Your task to perform on an android device: Open the web browser Image 0: 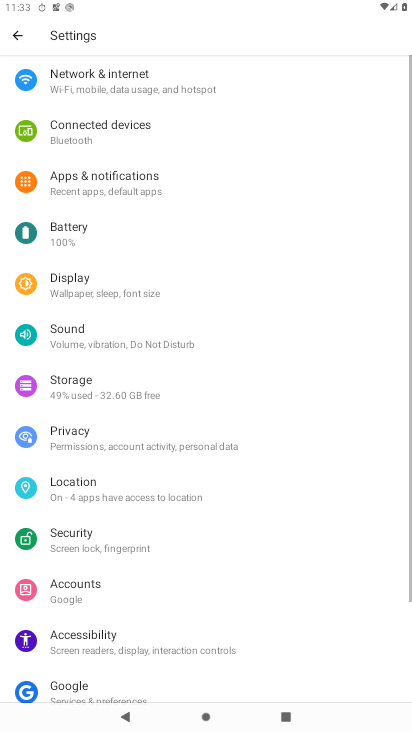
Step 0: press home button
Your task to perform on an android device: Open the web browser Image 1: 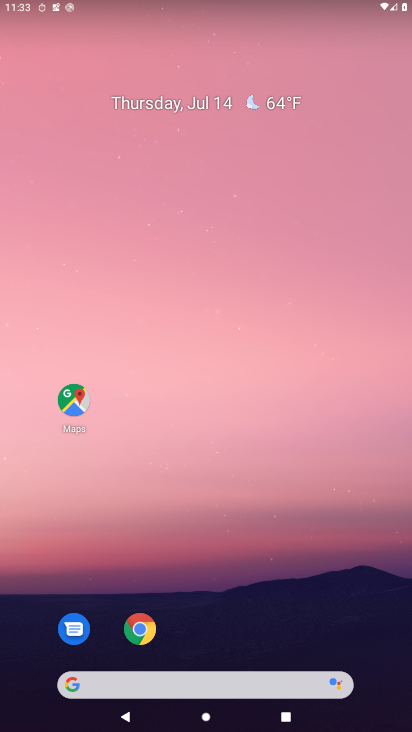
Step 1: drag from (159, 679) to (159, 363)
Your task to perform on an android device: Open the web browser Image 2: 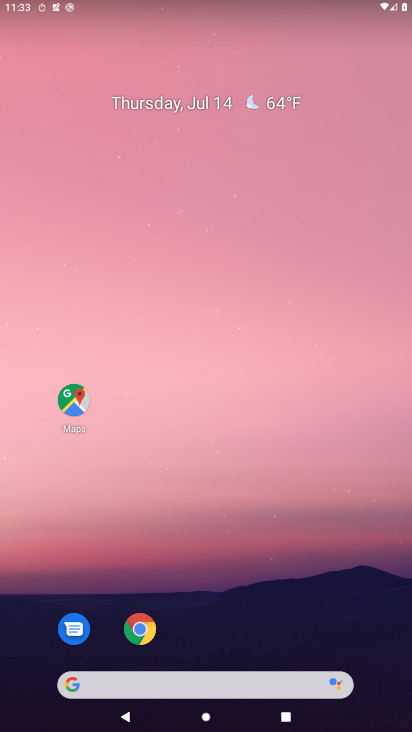
Step 2: click (132, 642)
Your task to perform on an android device: Open the web browser Image 3: 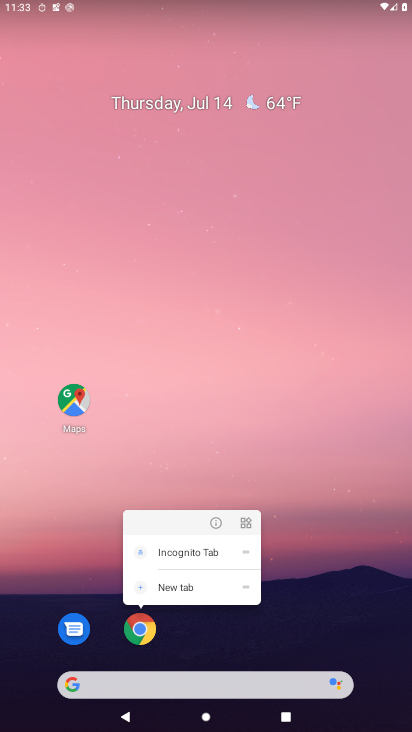
Step 3: click (151, 626)
Your task to perform on an android device: Open the web browser Image 4: 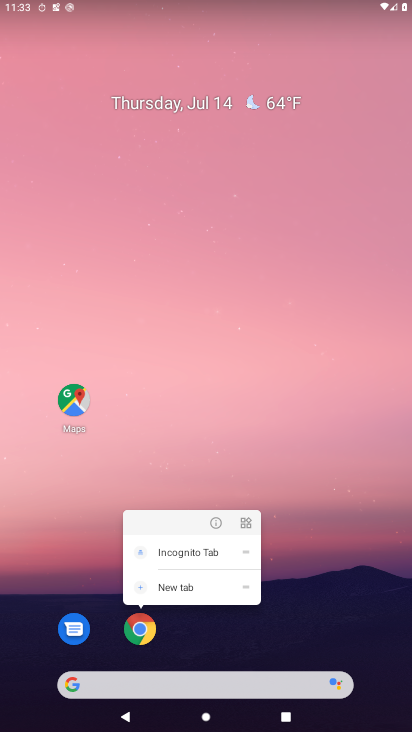
Step 4: click (133, 633)
Your task to perform on an android device: Open the web browser Image 5: 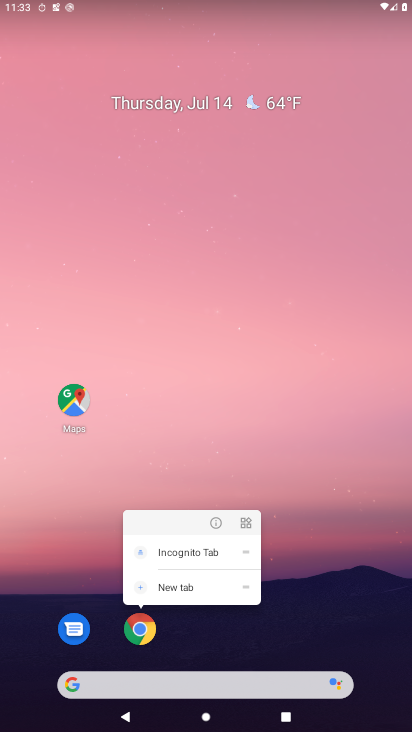
Step 5: click (133, 633)
Your task to perform on an android device: Open the web browser Image 6: 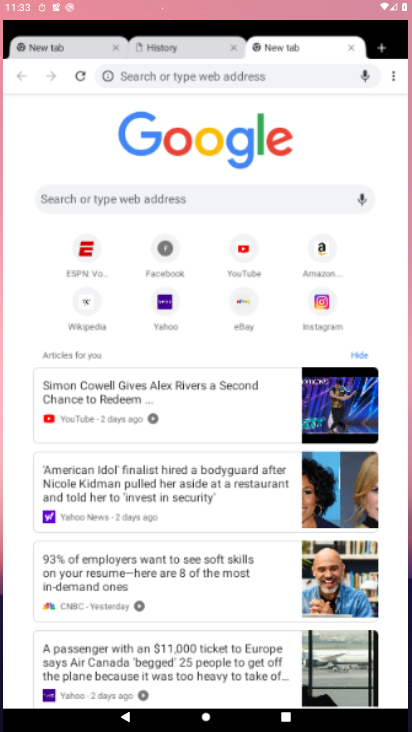
Step 6: click (142, 630)
Your task to perform on an android device: Open the web browser Image 7: 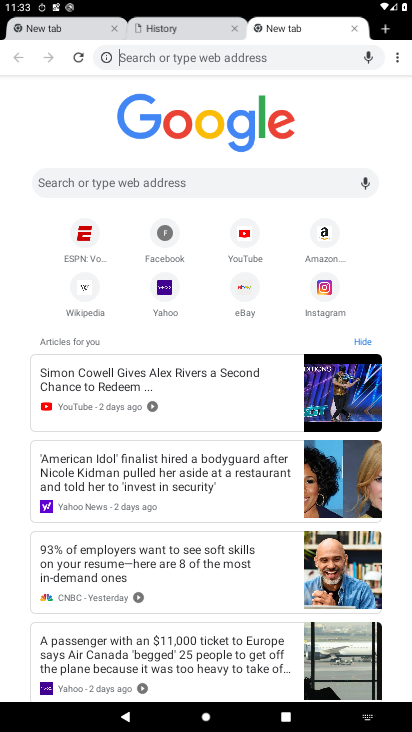
Step 7: task complete